Your task to perform on an android device: Search for Mexican restaurants on Maps Image 0: 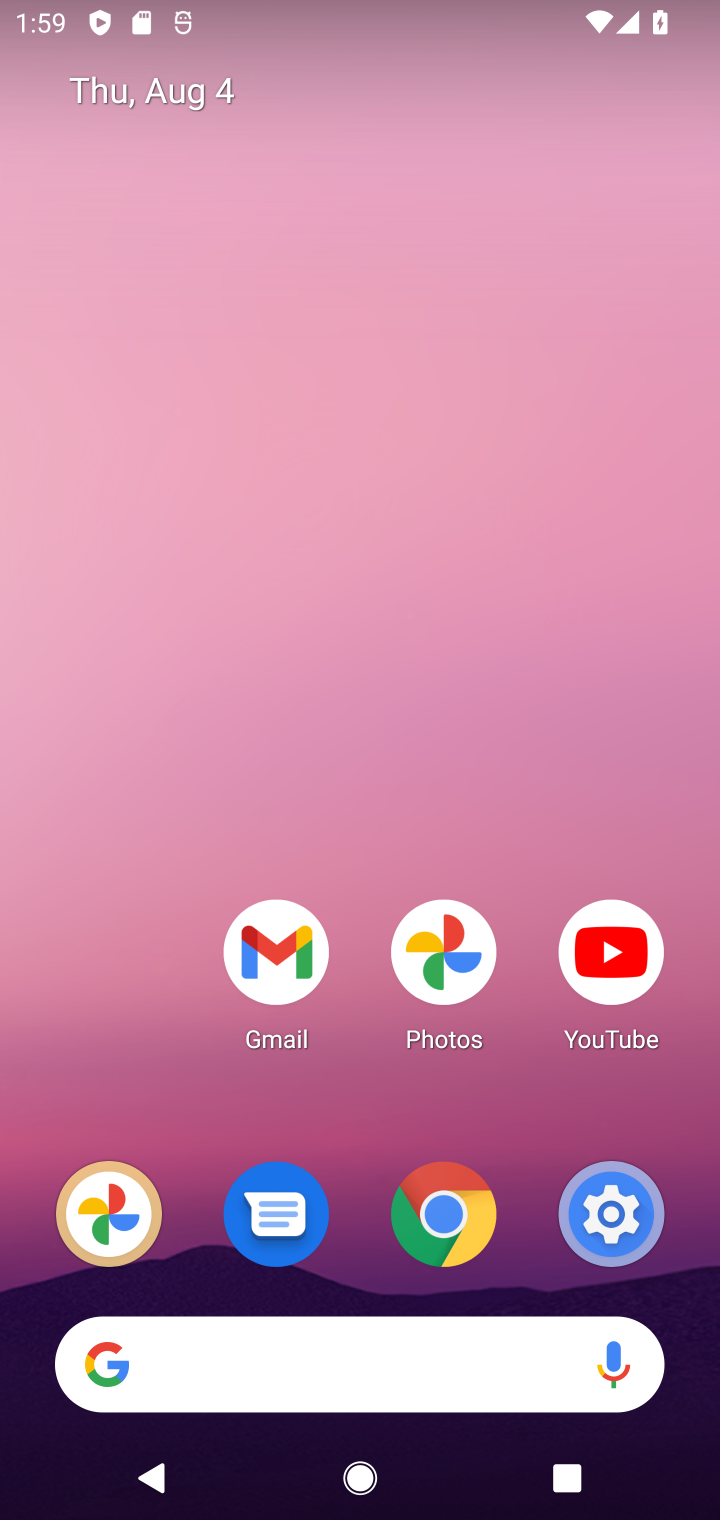
Step 0: drag from (438, 734) to (241, 58)
Your task to perform on an android device: Search for Mexican restaurants on Maps Image 1: 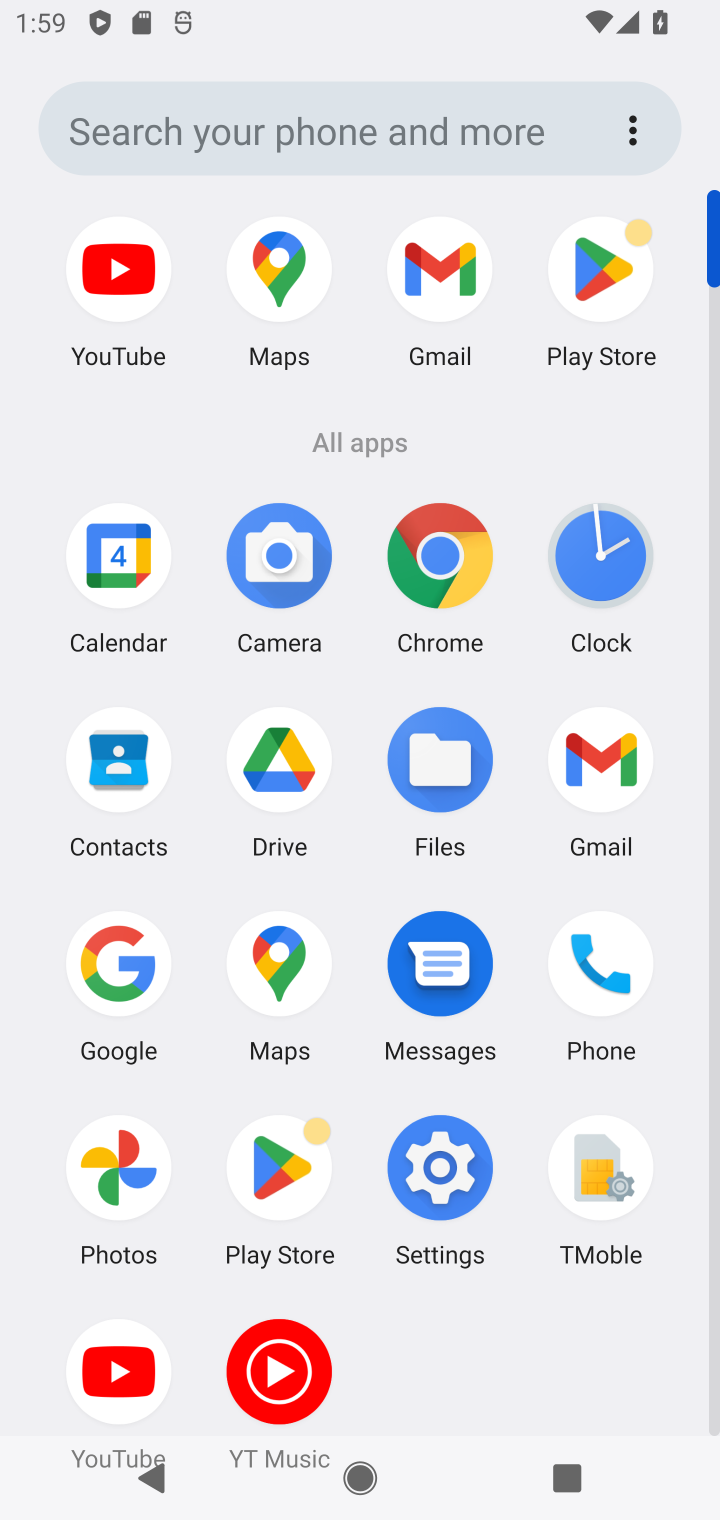
Step 1: click (270, 927)
Your task to perform on an android device: Search for Mexican restaurants on Maps Image 2: 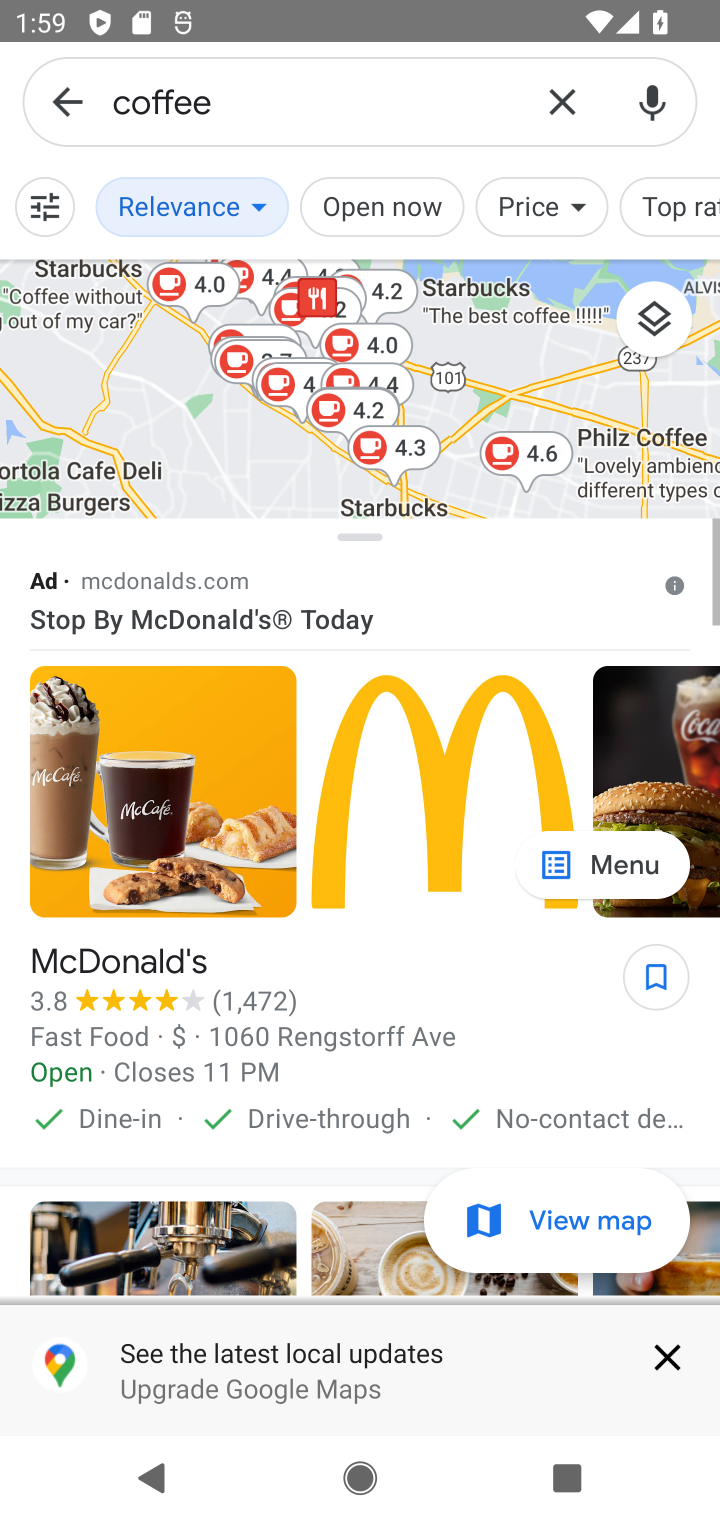
Step 2: press back button
Your task to perform on an android device: Search for Mexican restaurants on Maps Image 3: 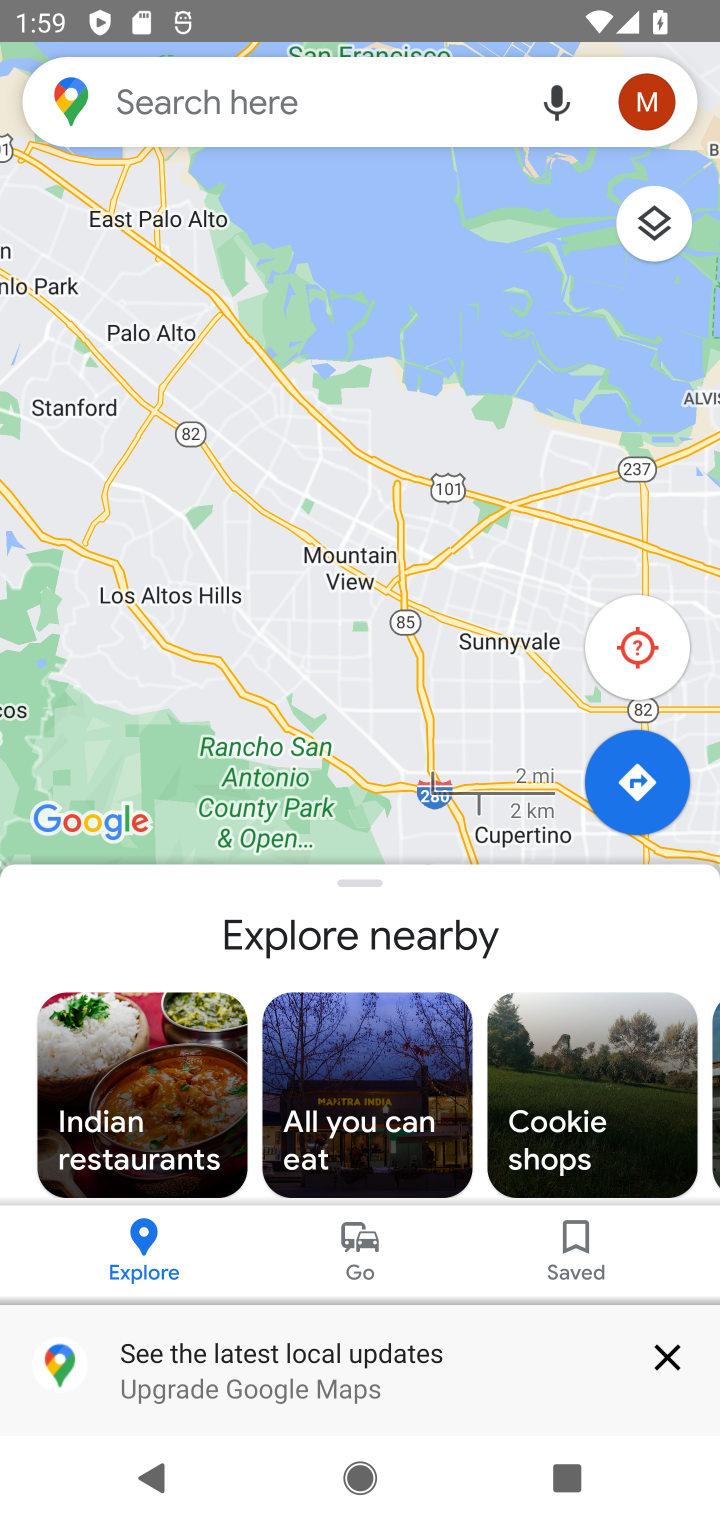
Step 3: click (206, 101)
Your task to perform on an android device: Search for Mexican restaurants on Maps Image 4: 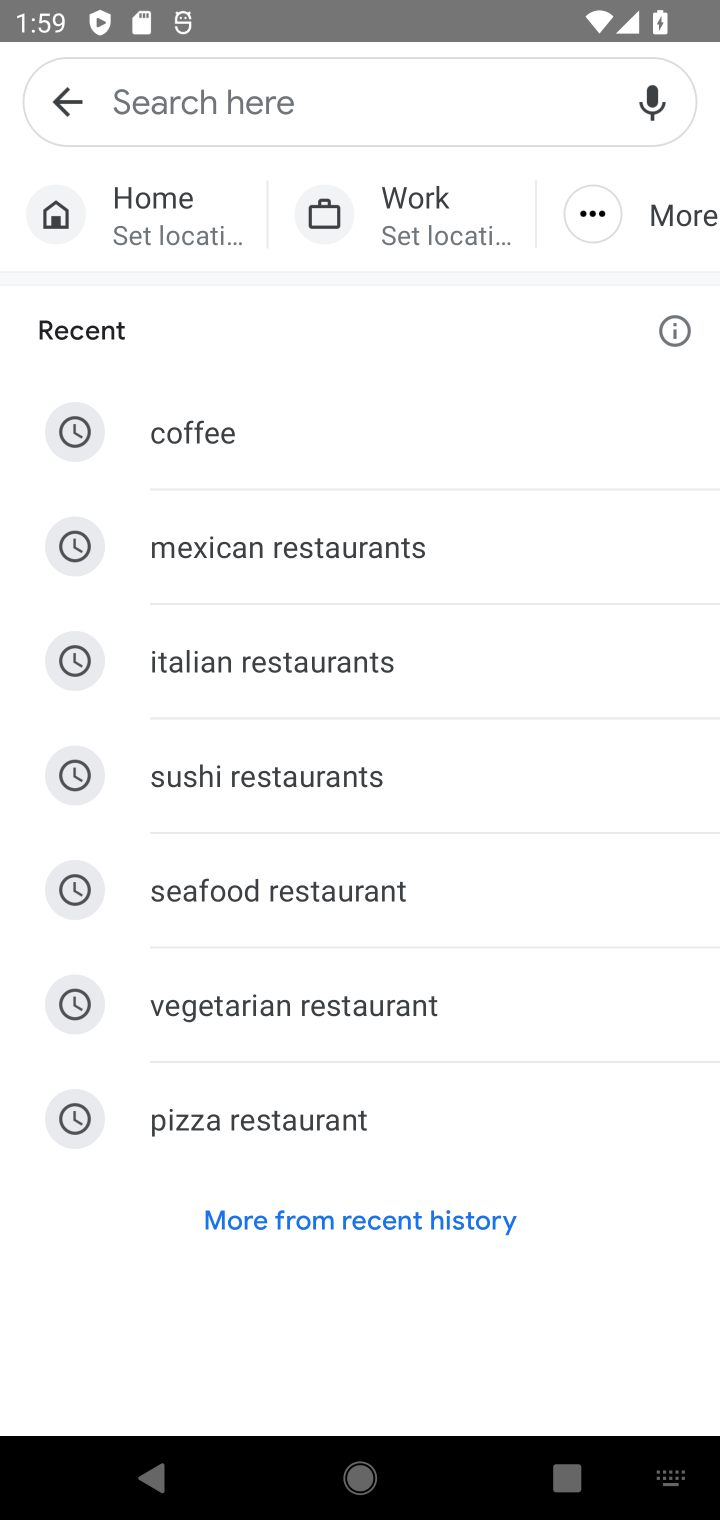
Step 4: click (137, 556)
Your task to perform on an android device: Search for Mexican restaurants on Maps Image 5: 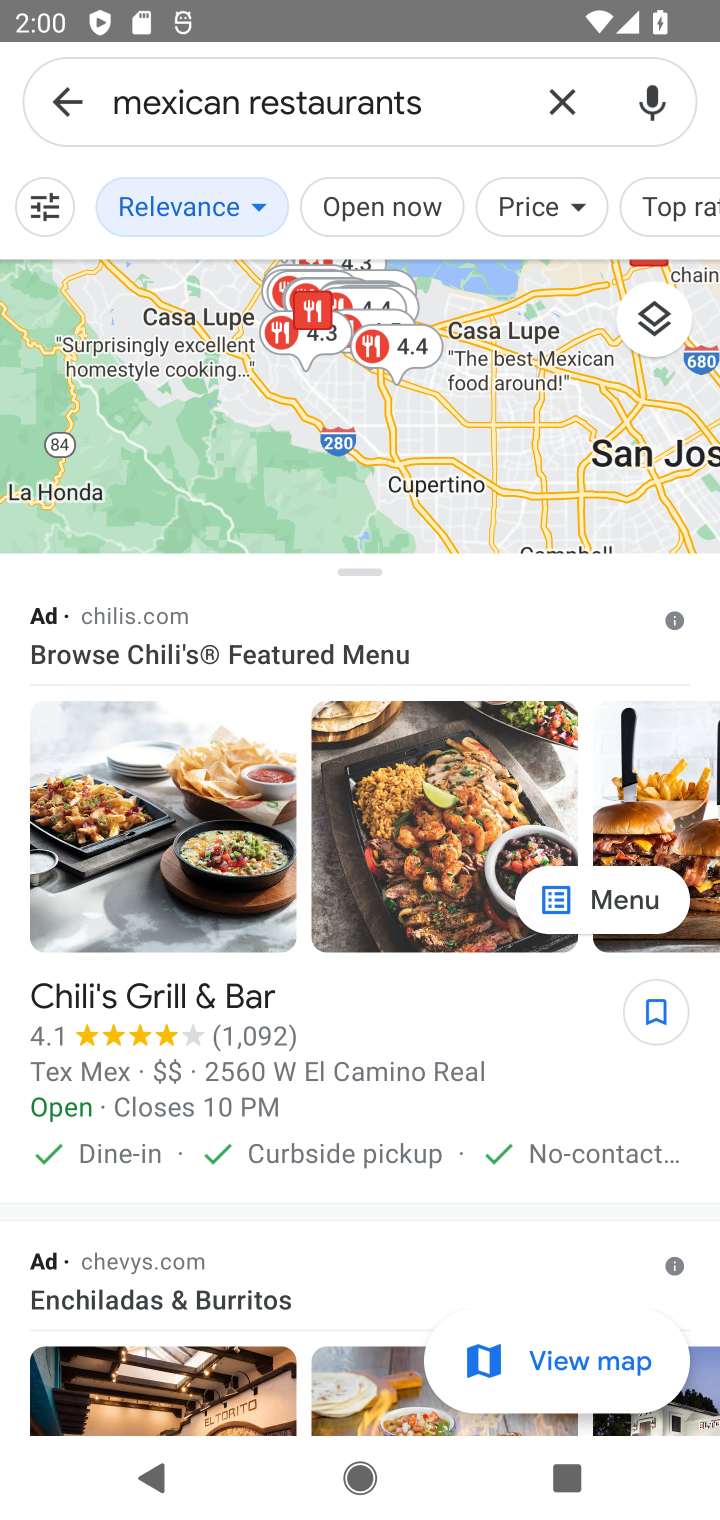
Step 5: task complete